Your task to perform on an android device: Open calendar and show me the second week of next month Image 0: 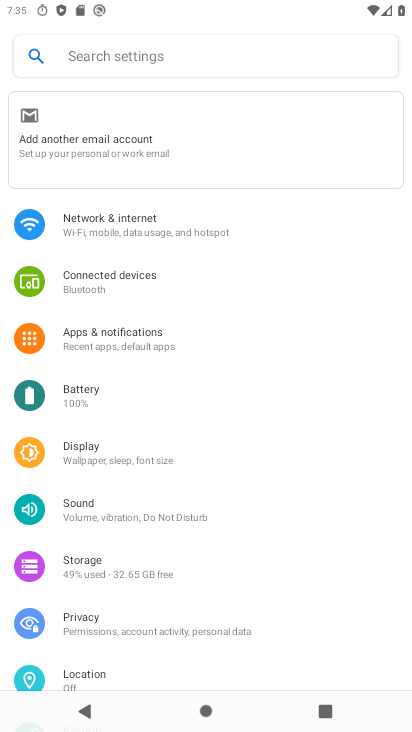
Step 0: press home button
Your task to perform on an android device: Open calendar and show me the second week of next month Image 1: 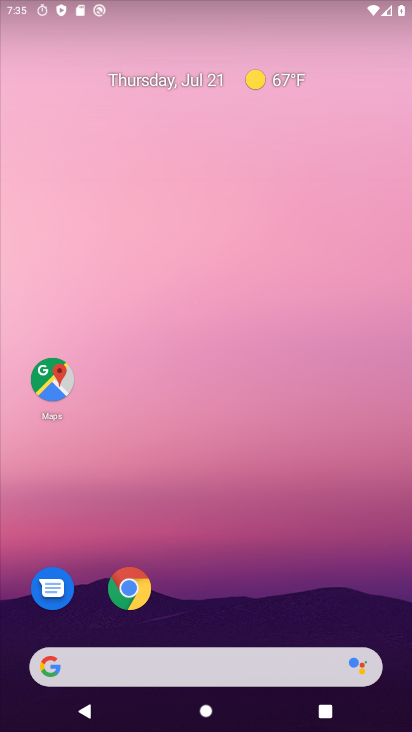
Step 1: drag from (137, 646) to (198, 324)
Your task to perform on an android device: Open calendar and show me the second week of next month Image 2: 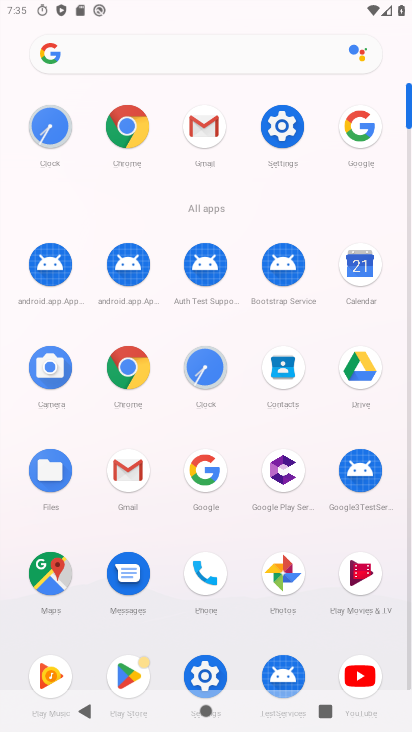
Step 2: click (356, 266)
Your task to perform on an android device: Open calendar and show me the second week of next month Image 3: 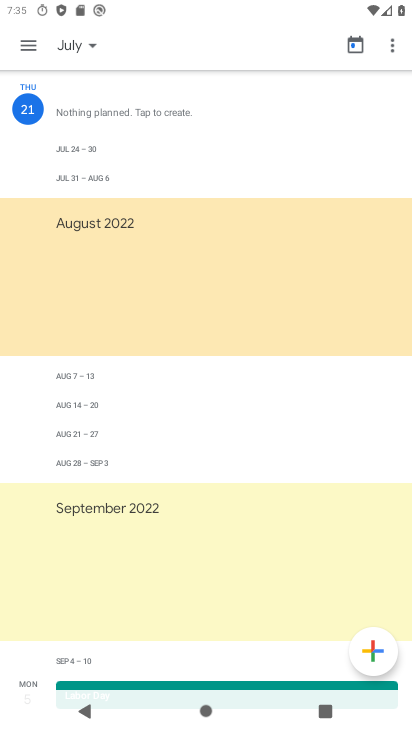
Step 3: click (95, 53)
Your task to perform on an android device: Open calendar and show me the second week of next month Image 4: 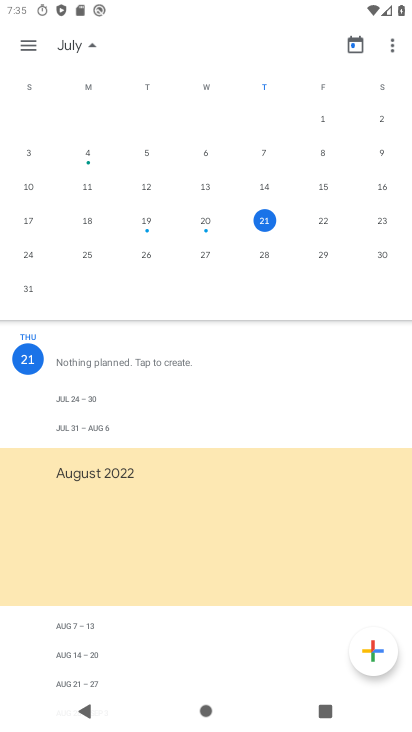
Step 4: drag from (340, 274) to (23, 207)
Your task to perform on an android device: Open calendar and show me the second week of next month Image 5: 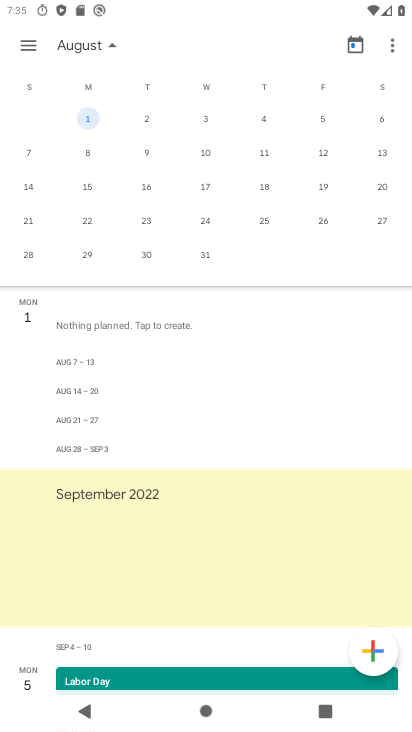
Step 5: click (32, 144)
Your task to perform on an android device: Open calendar and show me the second week of next month Image 6: 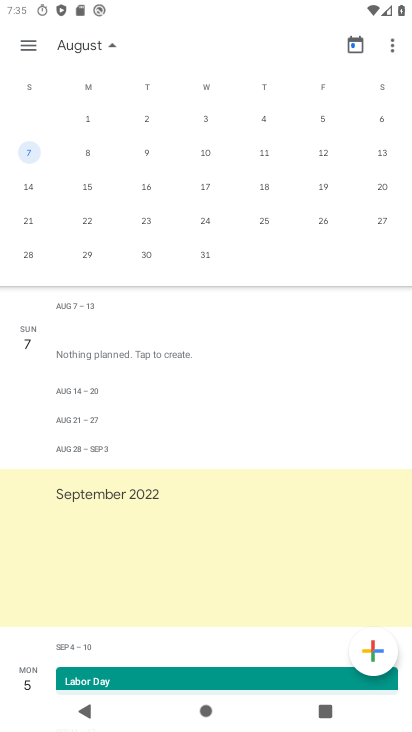
Step 6: task complete